Your task to perform on an android device: check google app version Image 0: 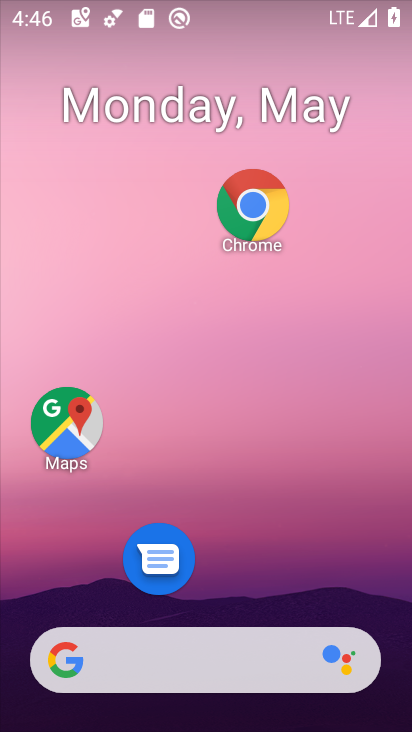
Step 0: click (78, 651)
Your task to perform on an android device: check google app version Image 1: 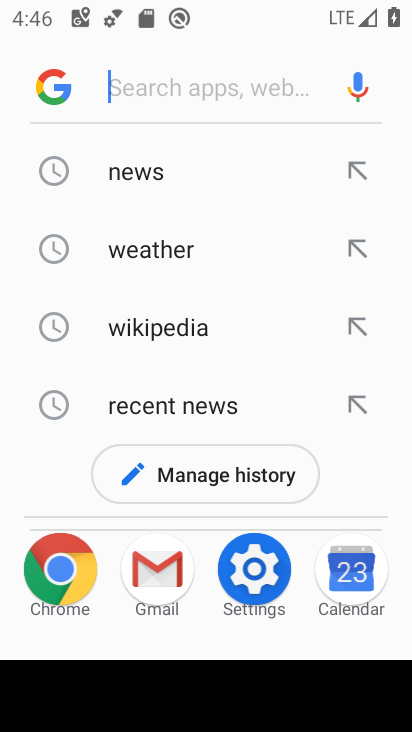
Step 1: click (48, 91)
Your task to perform on an android device: check google app version Image 2: 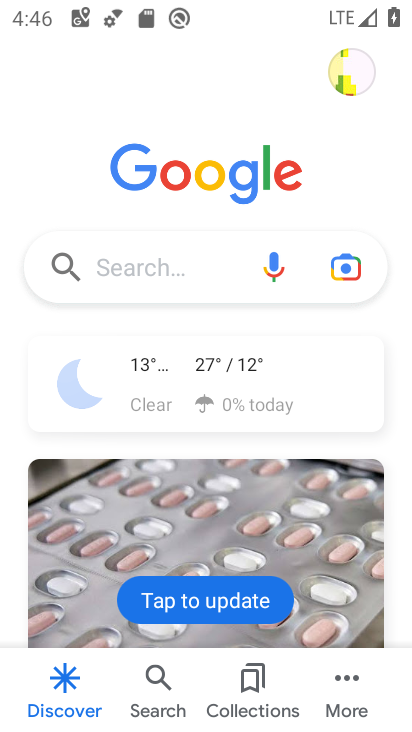
Step 2: click (349, 698)
Your task to perform on an android device: check google app version Image 3: 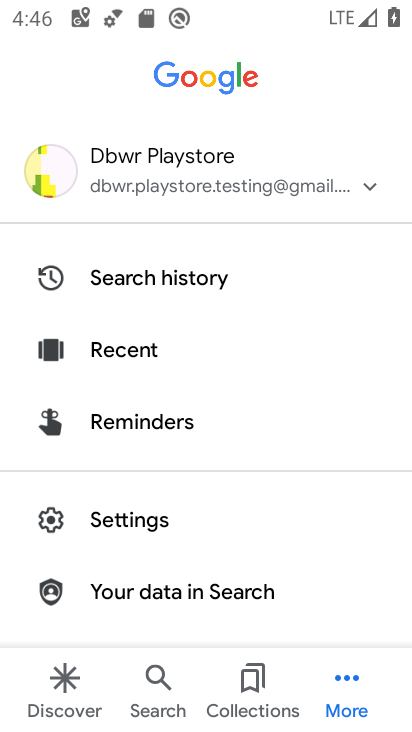
Step 3: click (122, 545)
Your task to perform on an android device: check google app version Image 4: 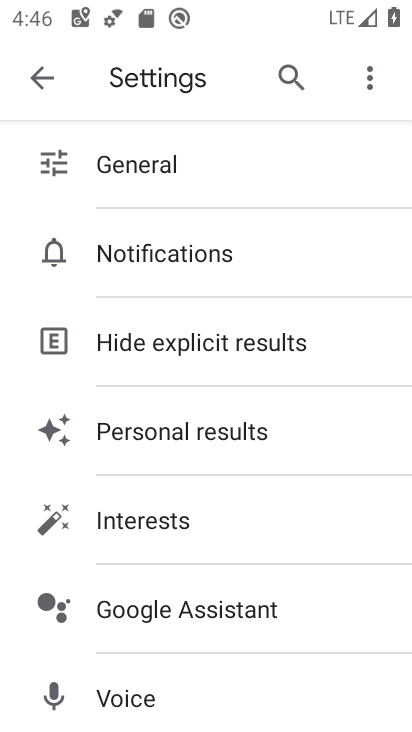
Step 4: drag from (196, 680) to (318, 352)
Your task to perform on an android device: check google app version Image 5: 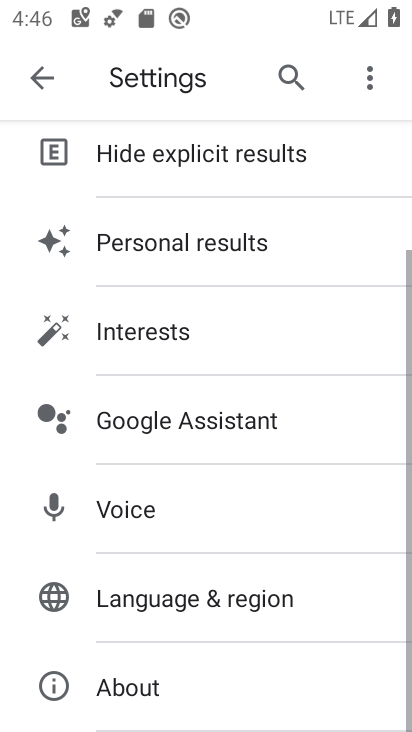
Step 5: click (166, 689)
Your task to perform on an android device: check google app version Image 6: 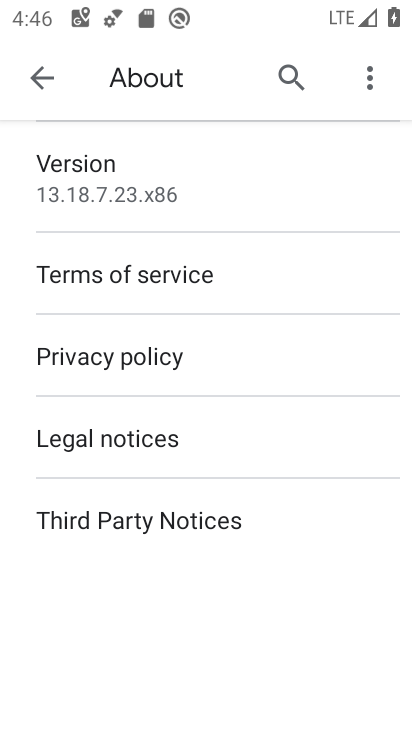
Step 6: task complete